Your task to perform on an android device: Open calendar and show me the second week of next month Image 0: 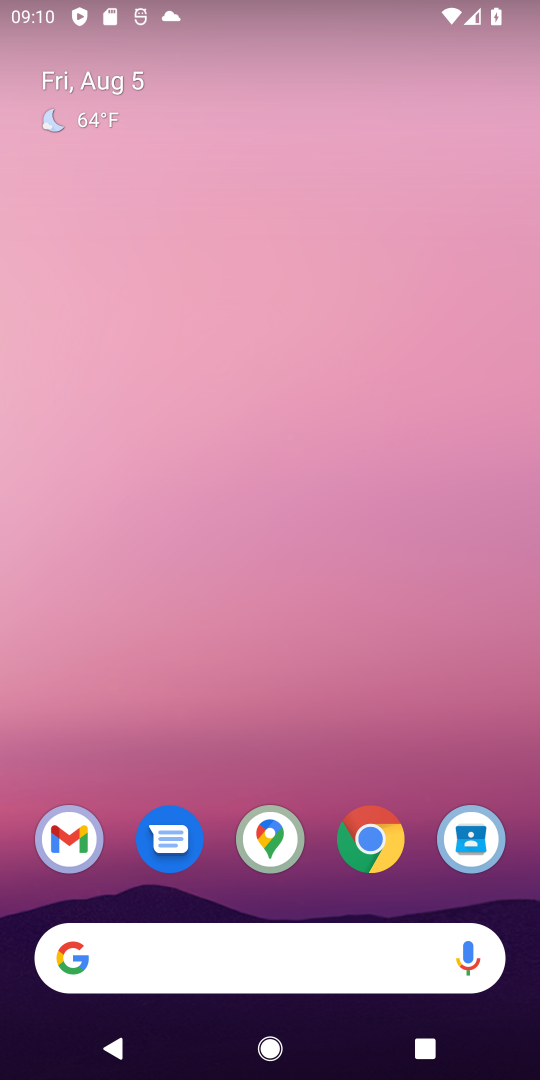
Step 0: drag from (297, 335) to (295, 44)
Your task to perform on an android device: Open calendar and show me the second week of next month Image 1: 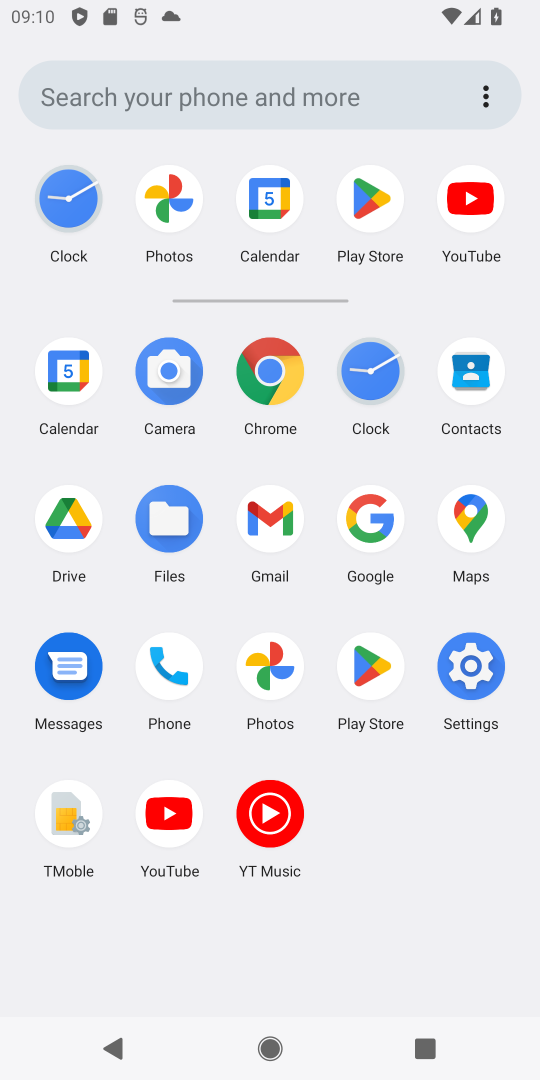
Step 1: click (70, 382)
Your task to perform on an android device: Open calendar and show me the second week of next month Image 2: 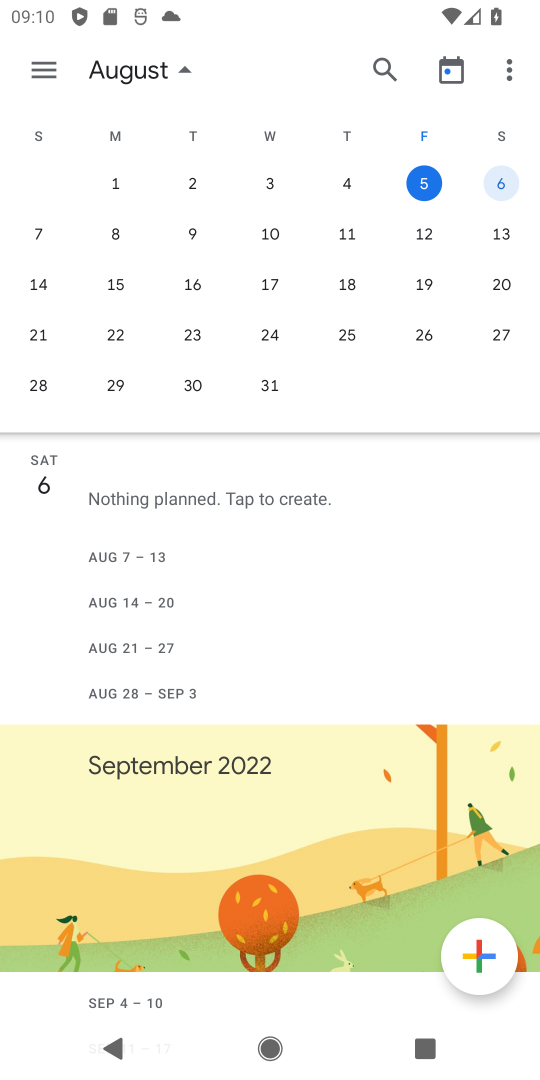
Step 2: drag from (441, 269) to (51, 245)
Your task to perform on an android device: Open calendar and show me the second week of next month Image 3: 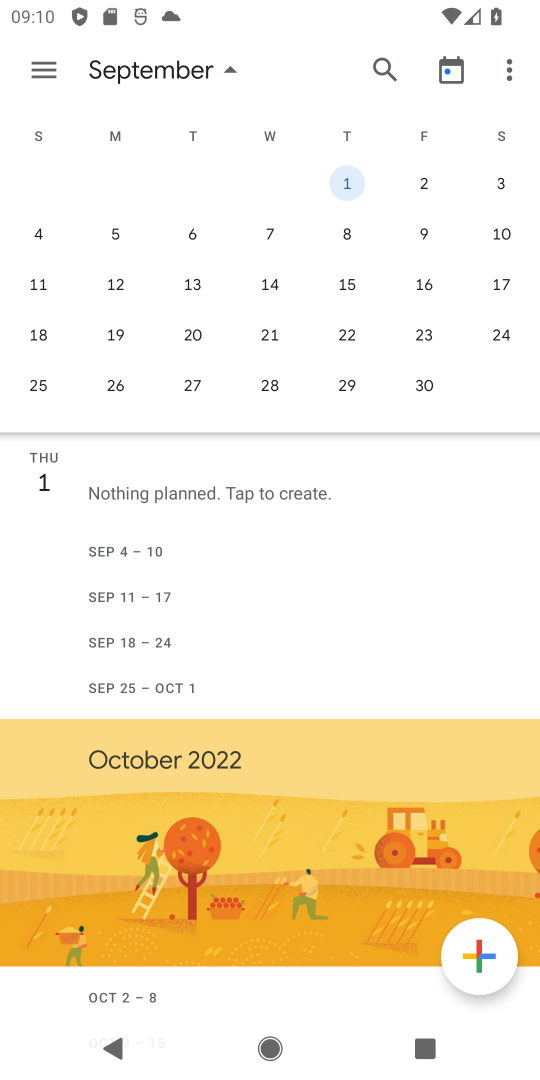
Step 3: click (122, 231)
Your task to perform on an android device: Open calendar and show me the second week of next month Image 4: 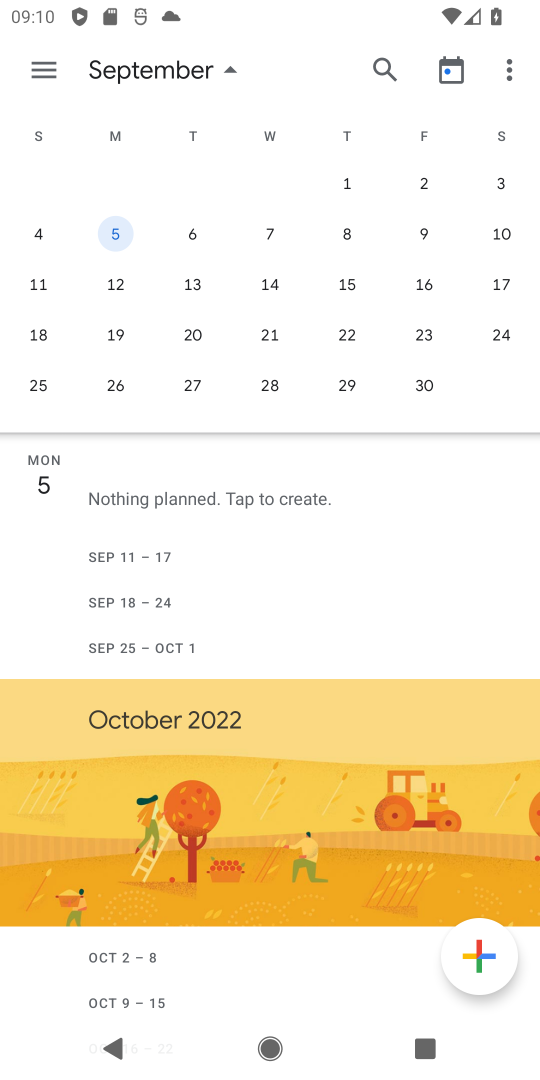
Step 4: click (43, 69)
Your task to perform on an android device: Open calendar and show me the second week of next month Image 5: 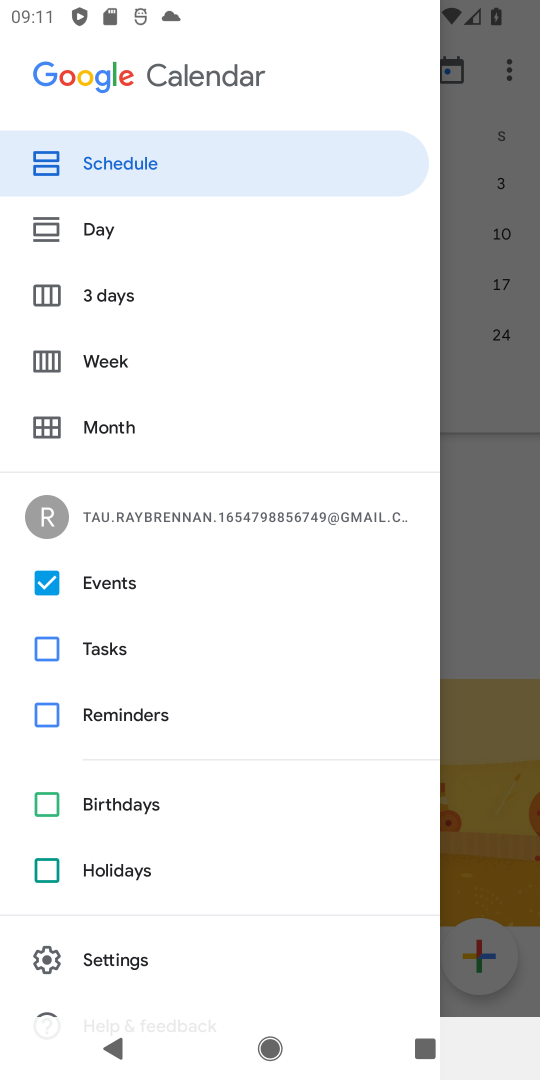
Step 5: click (109, 362)
Your task to perform on an android device: Open calendar and show me the second week of next month Image 6: 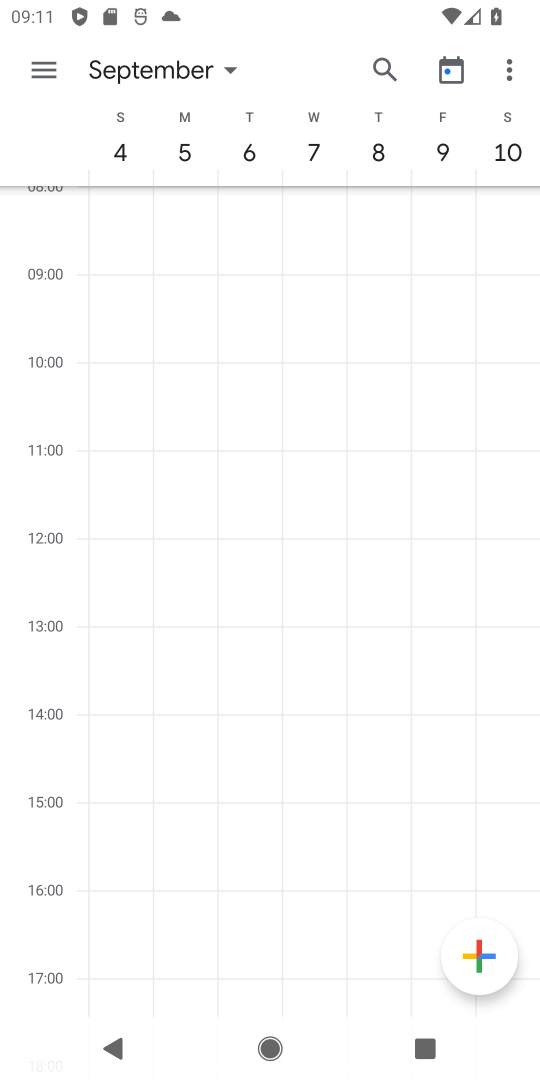
Step 6: task complete